Your task to perform on an android device: turn on wifi Image 0: 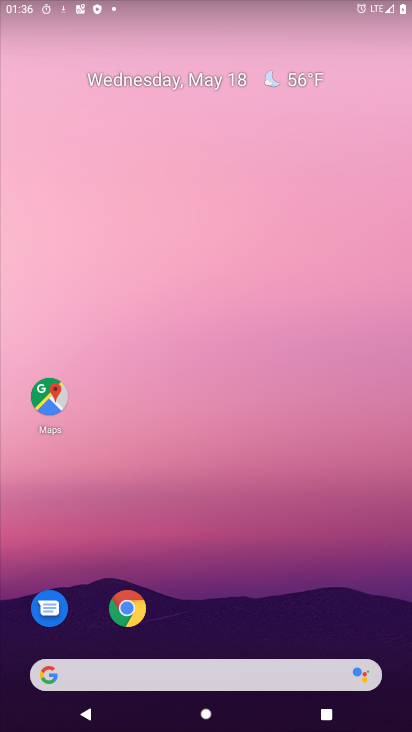
Step 0: drag from (291, 694) to (284, 248)
Your task to perform on an android device: turn on wifi Image 1: 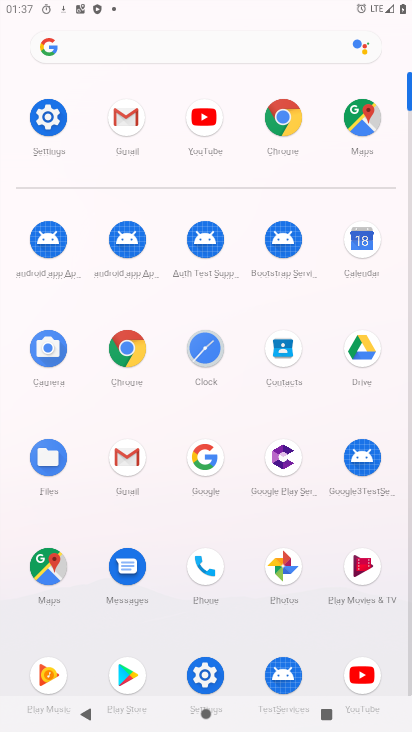
Step 1: click (55, 131)
Your task to perform on an android device: turn on wifi Image 2: 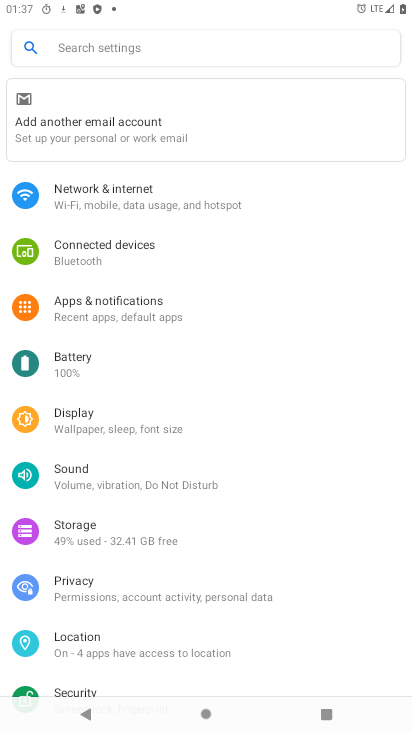
Step 2: click (155, 208)
Your task to perform on an android device: turn on wifi Image 3: 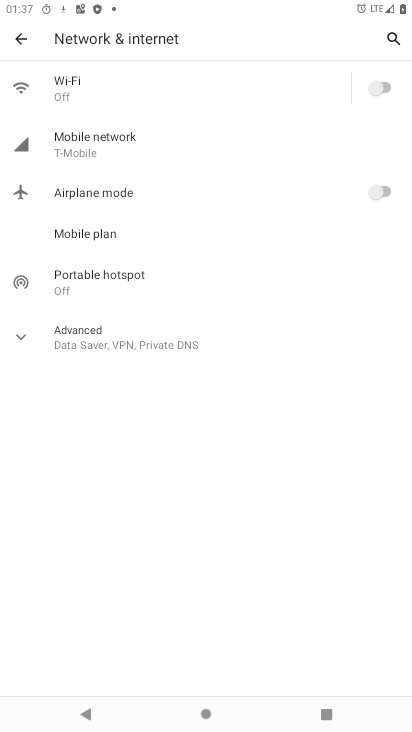
Step 3: click (146, 87)
Your task to perform on an android device: turn on wifi Image 4: 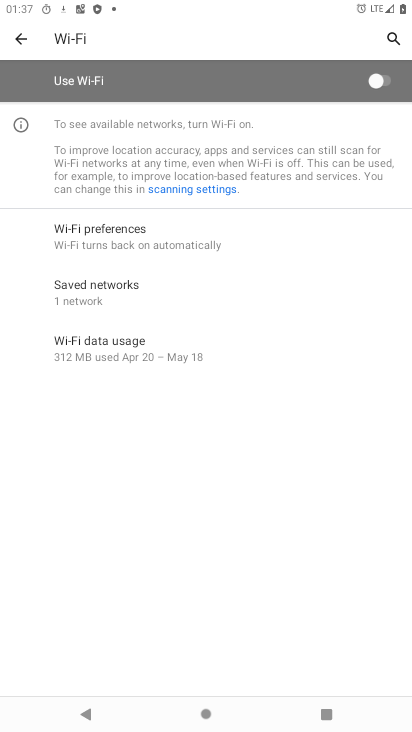
Step 4: click (390, 87)
Your task to perform on an android device: turn on wifi Image 5: 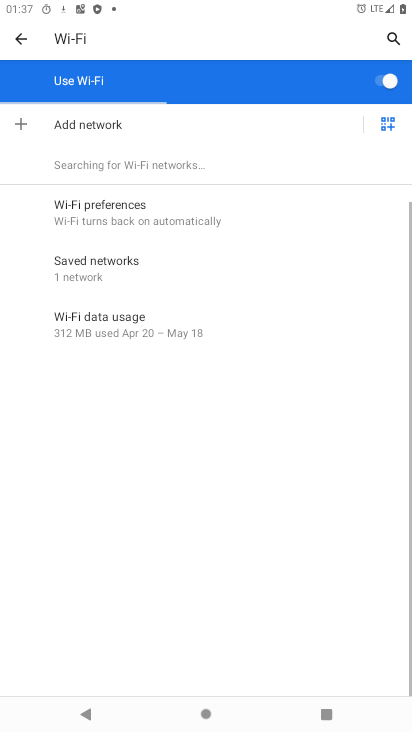
Step 5: task complete